Your task to perform on an android device: toggle show notifications on the lock screen Image 0: 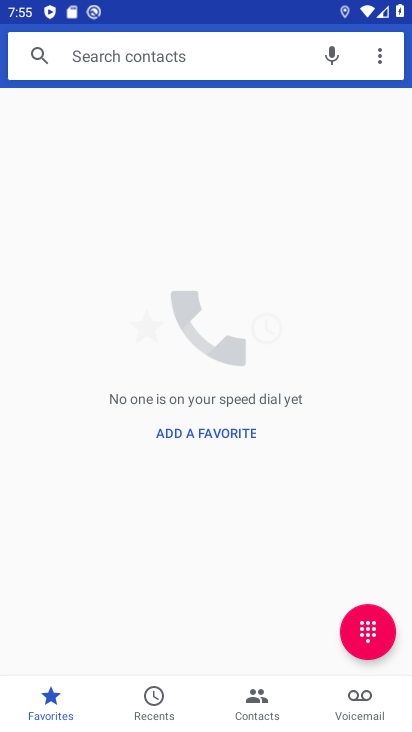
Step 0: press home button
Your task to perform on an android device: toggle show notifications on the lock screen Image 1: 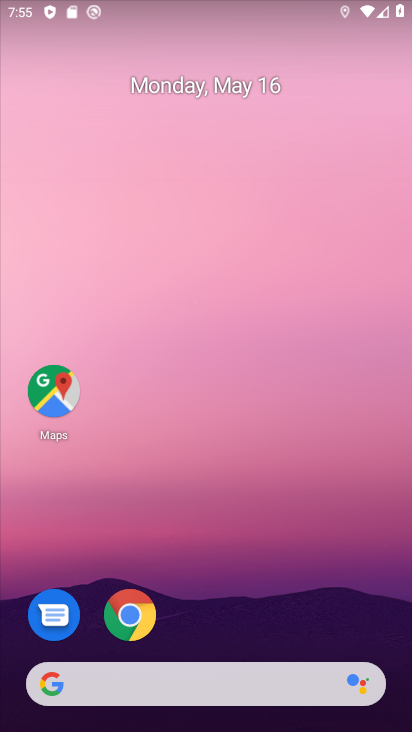
Step 1: drag from (180, 606) to (212, 208)
Your task to perform on an android device: toggle show notifications on the lock screen Image 2: 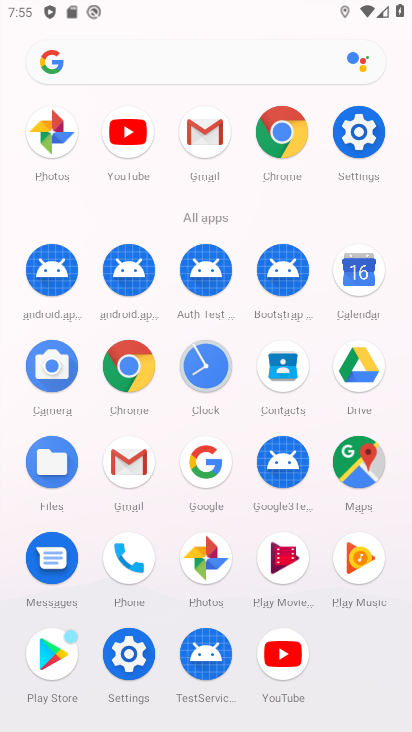
Step 2: click (348, 139)
Your task to perform on an android device: toggle show notifications on the lock screen Image 3: 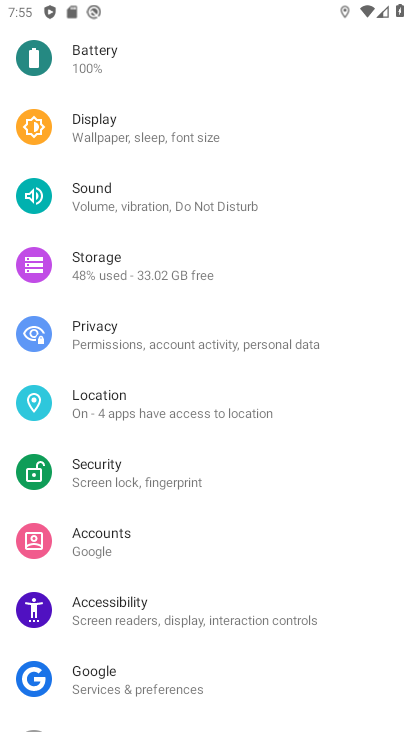
Step 3: drag from (146, 229) to (274, 661)
Your task to perform on an android device: toggle show notifications on the lock screen Image 4: 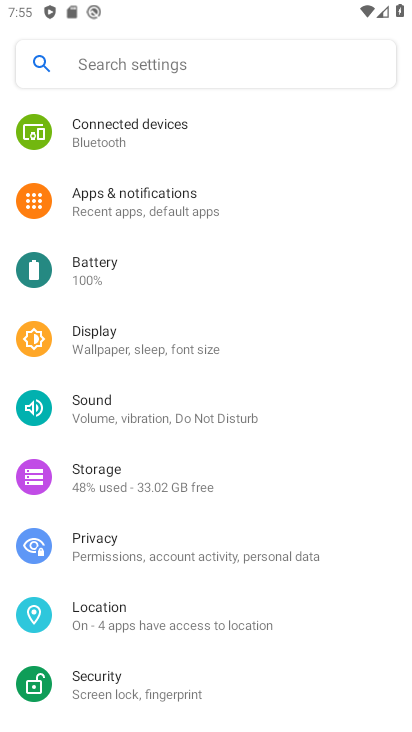
Step 4: click (218, 205)
Your task to perform on an android device: toggle show notifications on the lock screen Image 5: 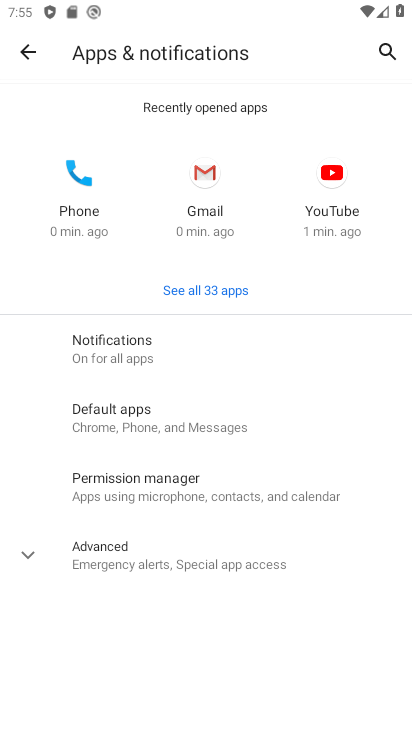
Step 5: click (185, 344)
Your task to perform on an android device: toggle show notifications on the lock screen Image 6: 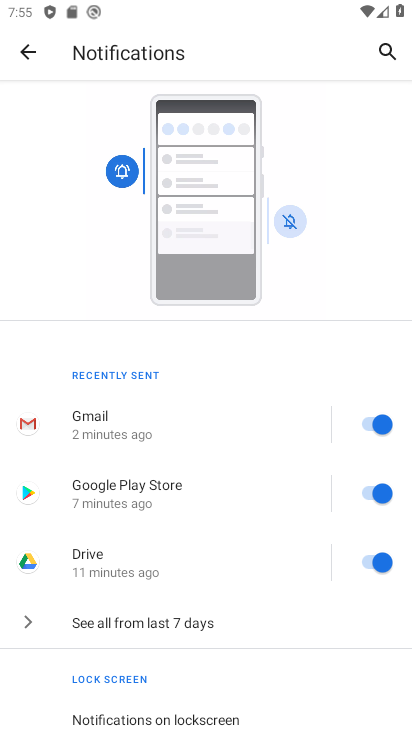
Step 6: drag from (197, 701) to (237, 342)
Your task to perform on an android device: toggle show notifications on the lock screen Image 7: 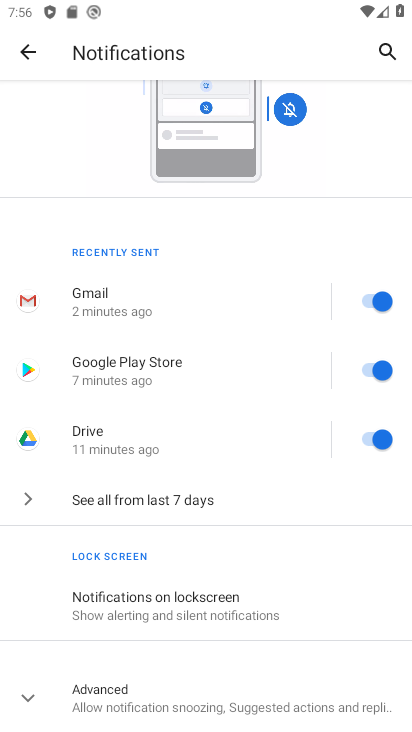
Step 7: click (220, 612)
Your task to perform on an android device: toggle show notifications on the lock screen Image 8: 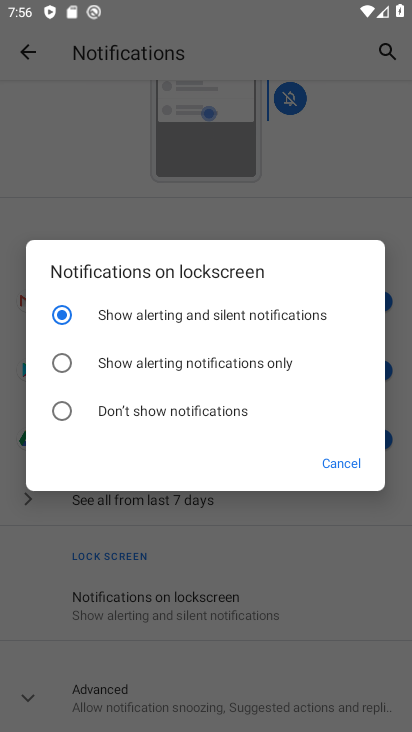
Step 8: task complete